Your task to perform on an android device: refresh tabs in the chrome app Image 0: 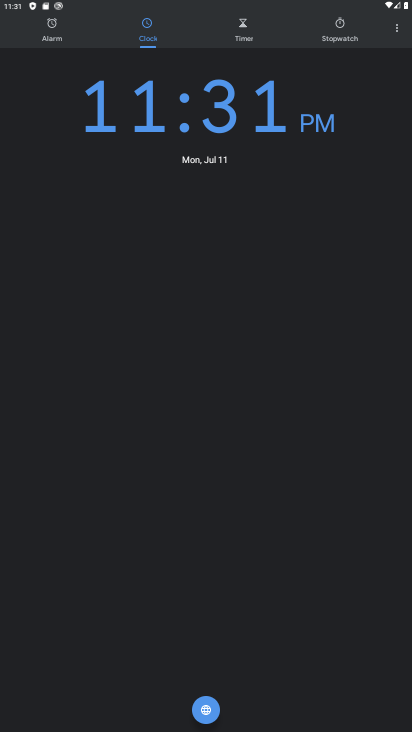
Step 0: press home button
Your task to perform on an android device: refresh tabs in the chrome app Image 1: 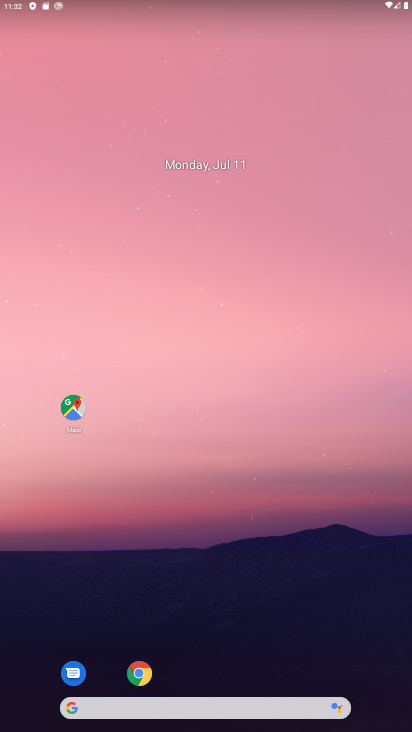
Step 1: click (144, 675)
Your task to perform on an android device: refresh tabs in the chrome app Image 2: 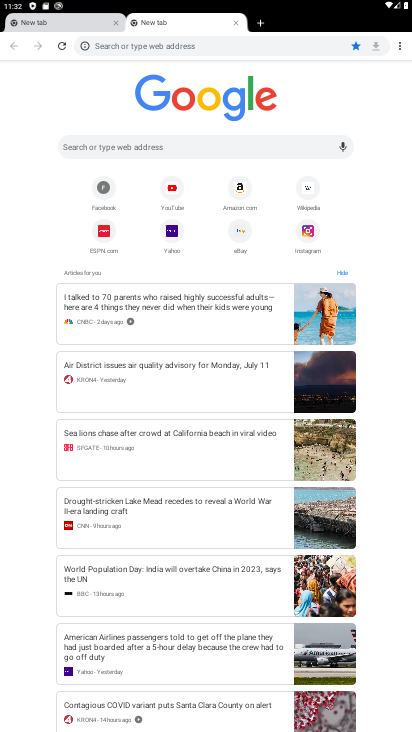
Step 2: click (397, 44)
Your task to perform on an android device: refresh tabs in the chrome app Image 3: 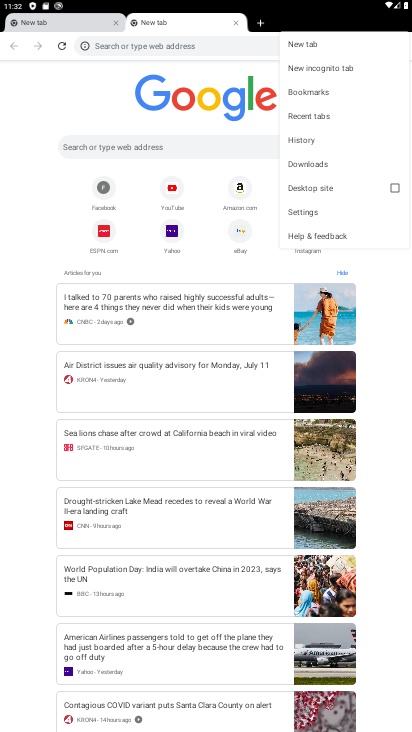
Step 3: click (59, 47)
Your task to perform on an android device: refresh tabs in the chrome app Image 4: 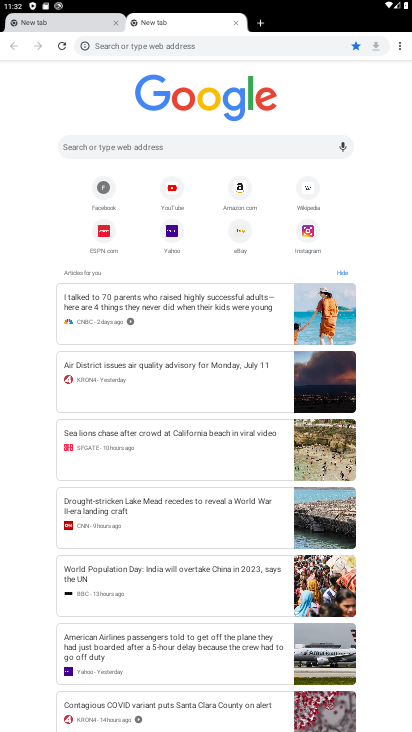
Step 4: task complete